Your task to perform on an android device: see sites visited before in the chrome app Image 0: 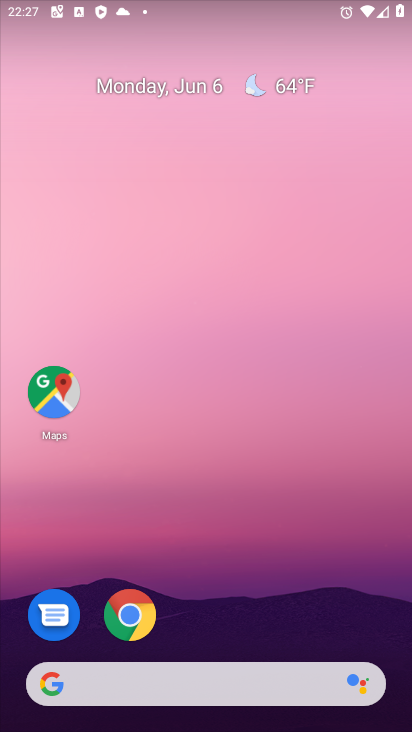
Step 0: click (130, 622)
Your task to perform on an android device: see sites visited before in the chrome app Image 1: 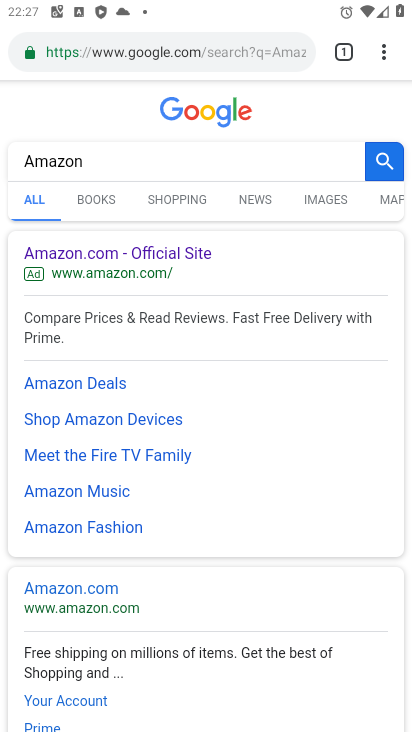
Step 1: click (388, 53)
Your task to perform on an android device: see sites visited before in the chrome app Image 2: 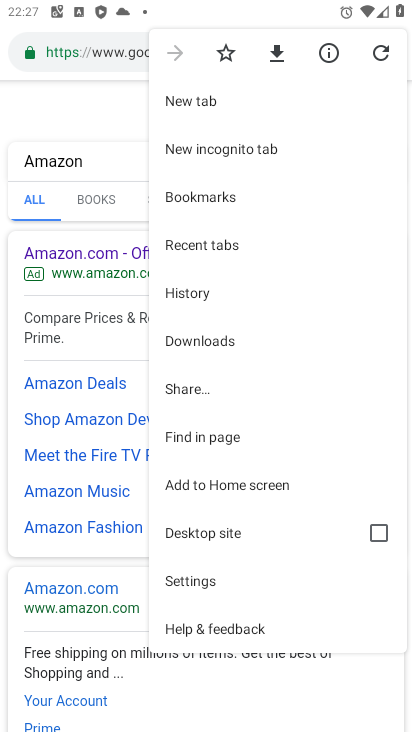
Step 2: click (197, 238)
Your task to perform on an android device: see sites visited before in the chrome app Image 3: 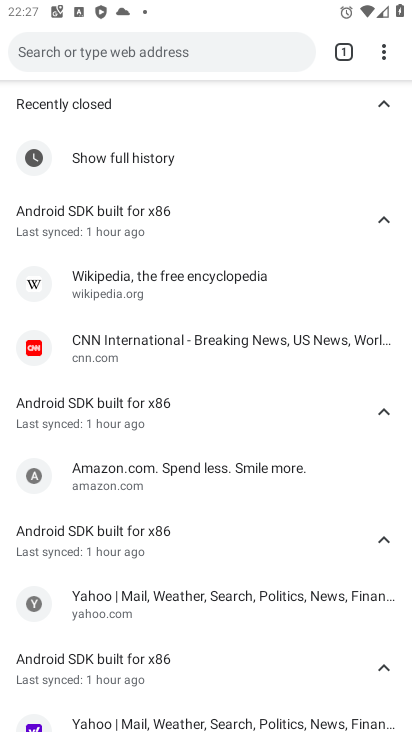
Step 3: task complete